Your task to perform on an android device: turn on sleep mode Image 0: 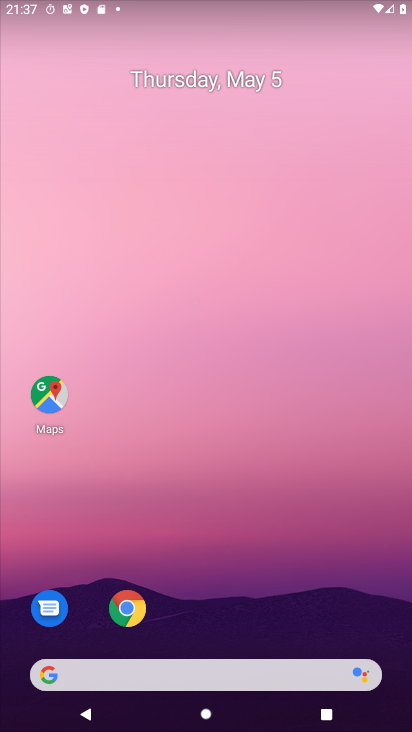
Step 0: drag from (313, 662) to (301, 15)
Your task to perform on an android device: turn on sleep mode Image 1: 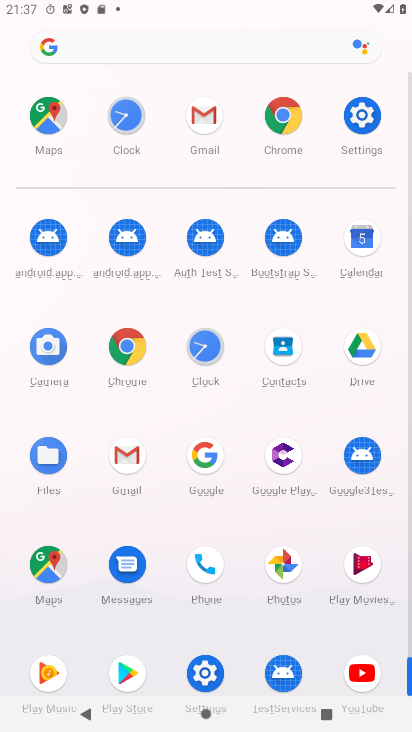
Step 1: click (365, 125)
Your task to perform on an android device: turn on sleep mode Image 2: 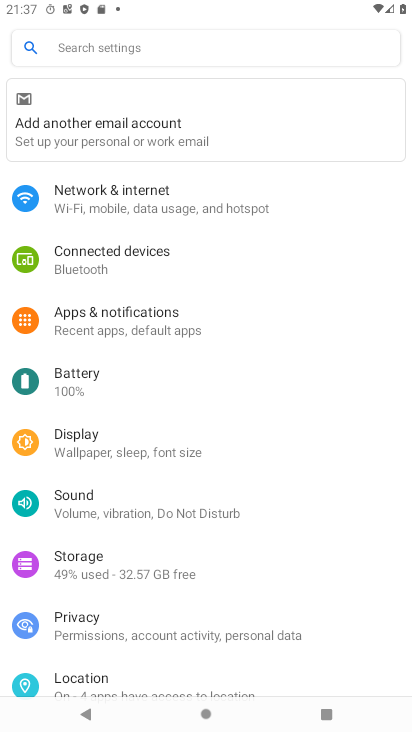
Step 2: drag from (198, 663) to (148, 110)
Your task to perform on an android device: turn on sleep mode Image 3: 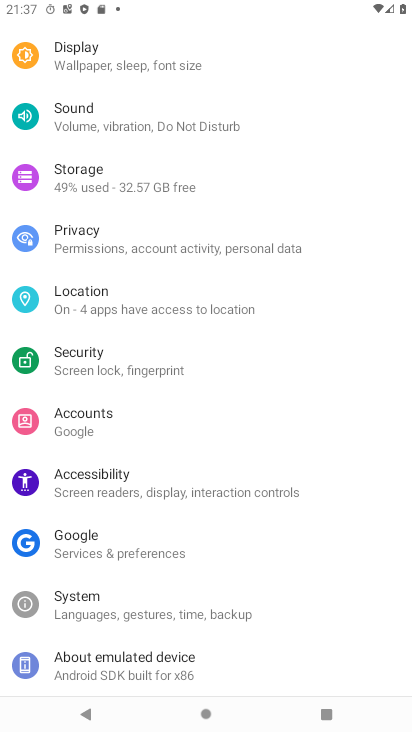
Step 3: drag from (140, 115) to (199, 678)
Your task to perform on an android device: turn on sleep mode Image 4: 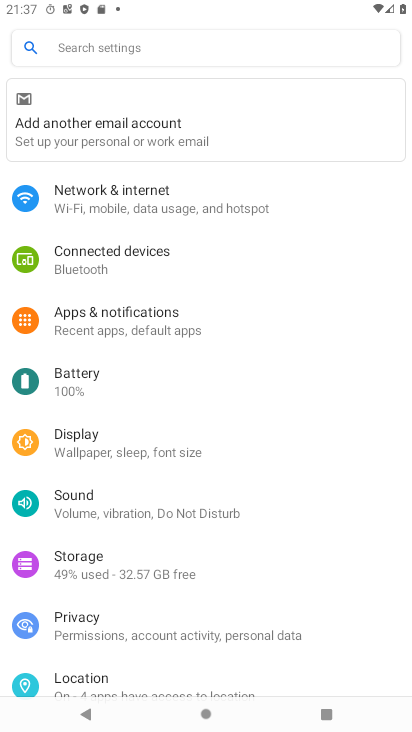
Step 4: click (128, 441)
Your task to perform on an android device: turn on sleep mode Image 5: 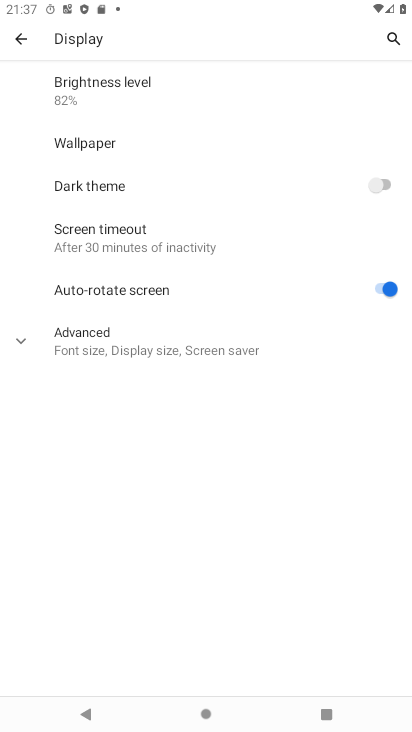
Step 5: task complete